Your task to perform on an android device: Open Google Maps Image 0: 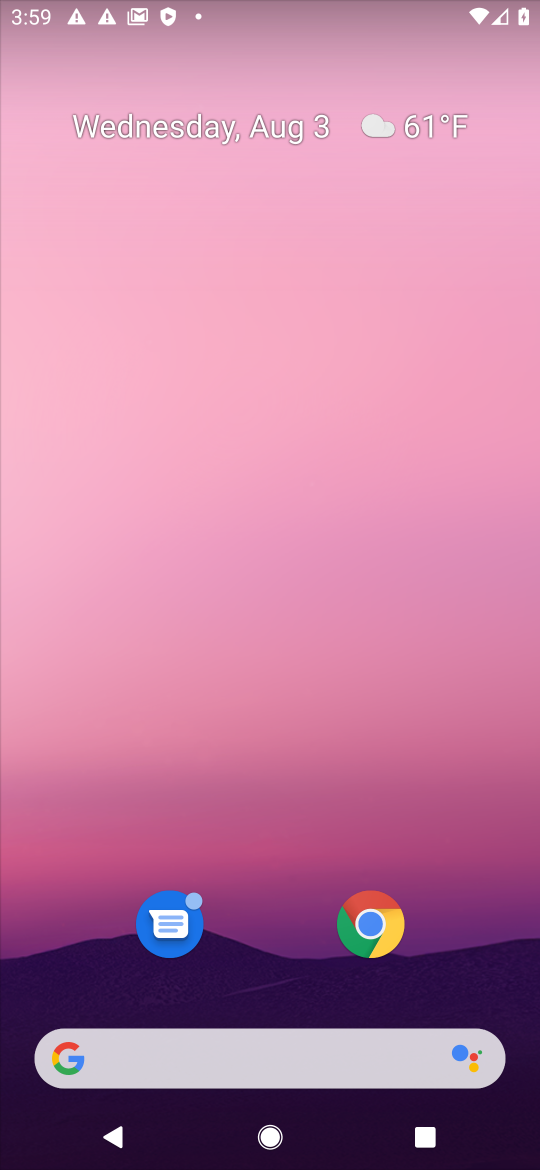
Step 0: press home button
Your task to perform on an android device: Open Google Maps Image 1: 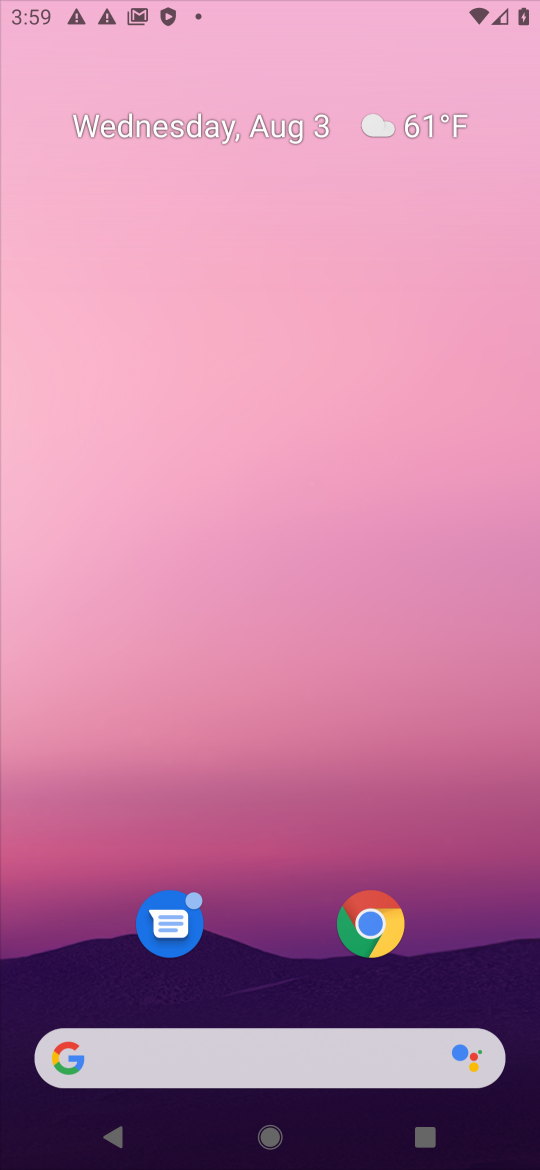
Step 1: press back button
Your task to perform on an android device: Open Google Maps Image 2: 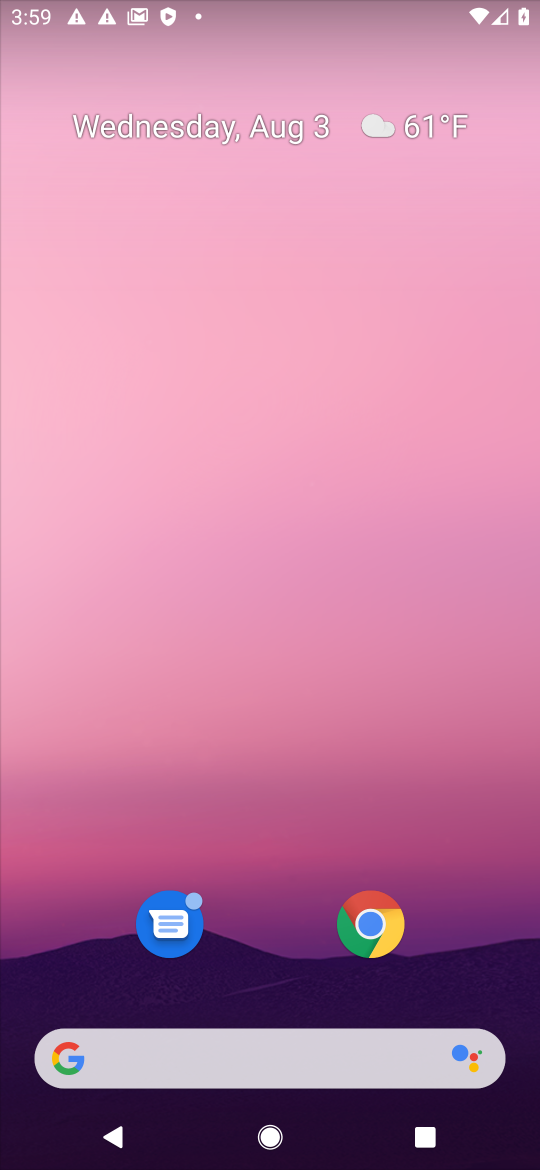
Step 2: drag from (255, 912) to (231, 217)
Your task to perform on an android device: Open Google Maps Image 3: 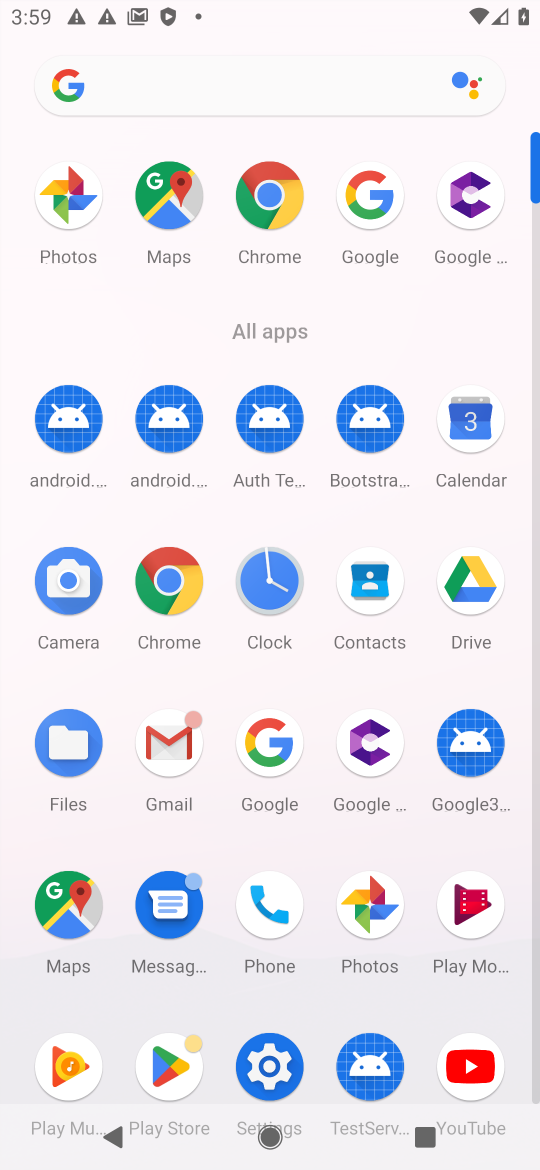
Step 3: click (178, 207)
Your task to perform on an android device: Open Google Maps Image 4: 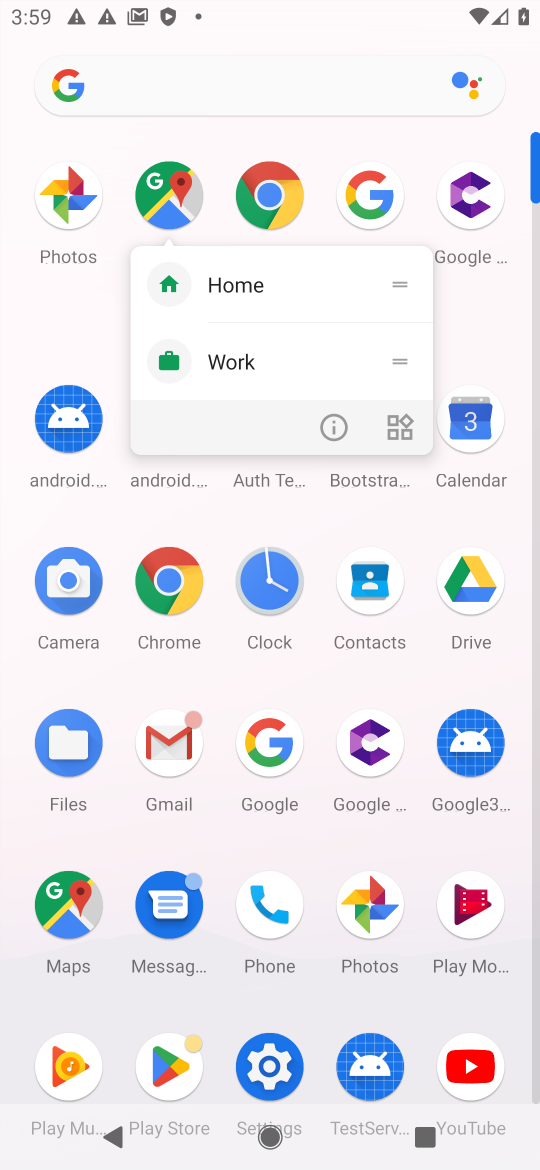
Step 4: click (178, 207)
Your task to perform on an android device: Open Google Maps Image 5: 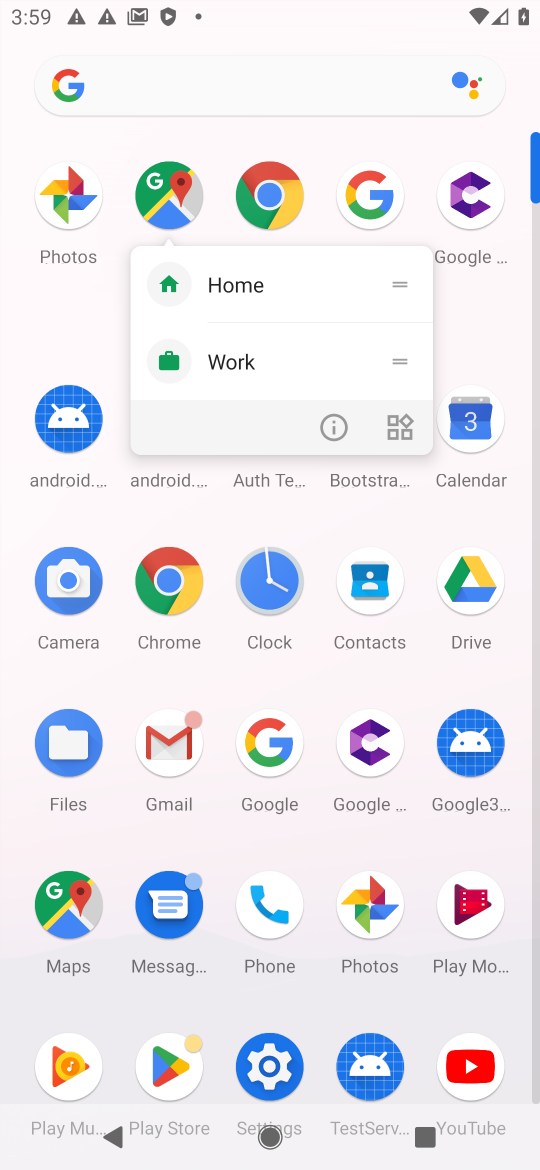
Step 5: click (157, 214)
Your task to perform on an android device: Open Google Maps Image 6: 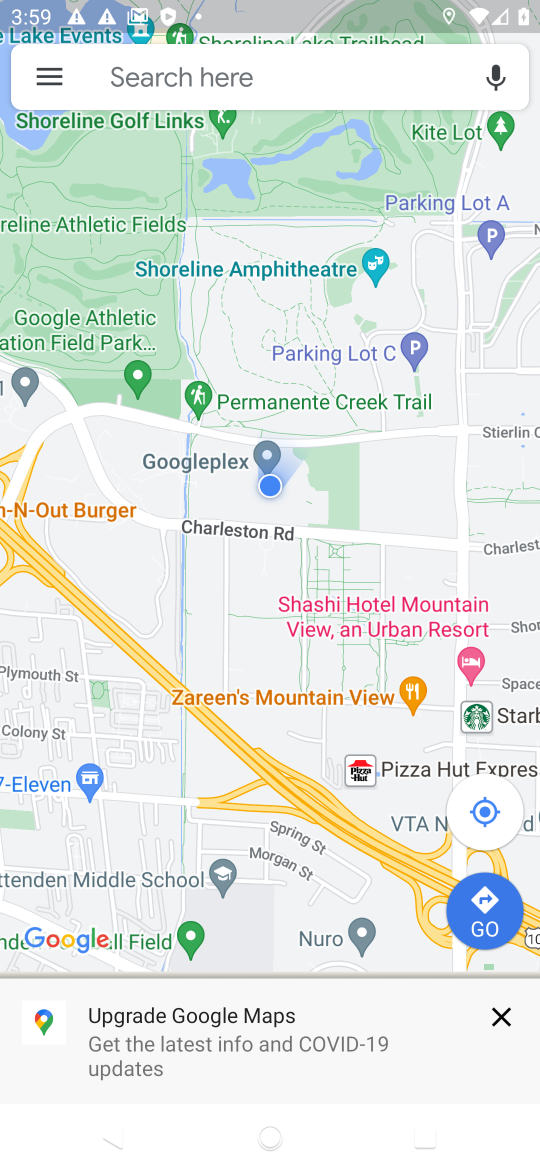
Step 6: task complete